Your task to perform on an android device: turn off javascript in the chrome app Image 0: 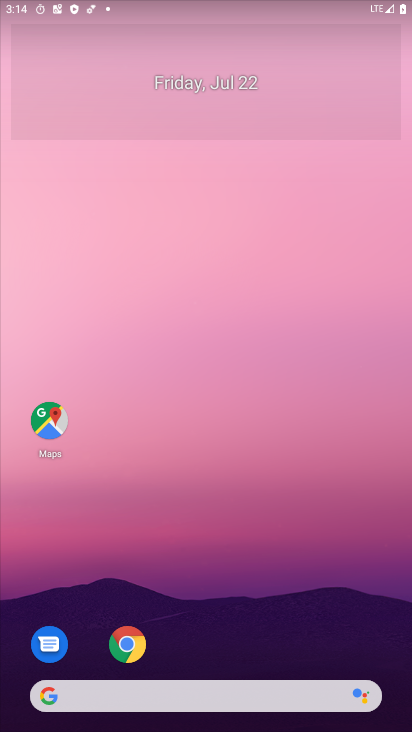
Step 0: drag from (206, 630) to (252, 165)
Your task to perform on an android device: turn off javascript in the chrome app Image 1: 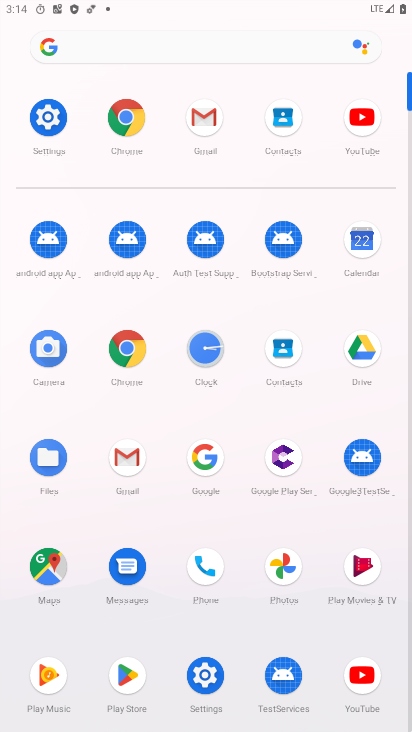
Step 1: click (128, 122)
Your task to perform on an android device: turn off javascript in the chrome app Image 2: 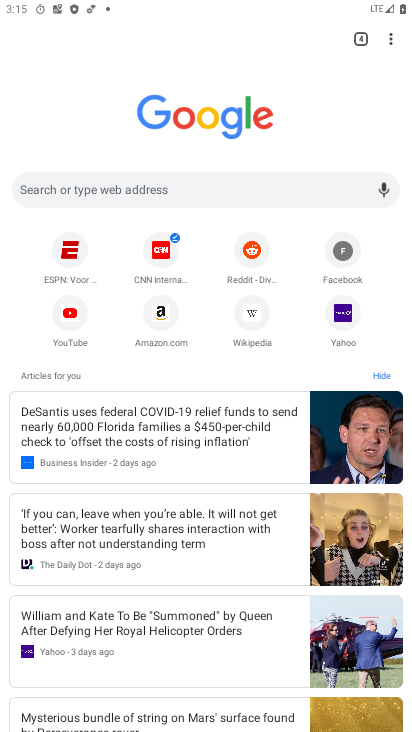
Step 2: drag from (386, 38) to (268, 372)
Your task to perform on an android device: turn off javascript in the chrome app Image 3: 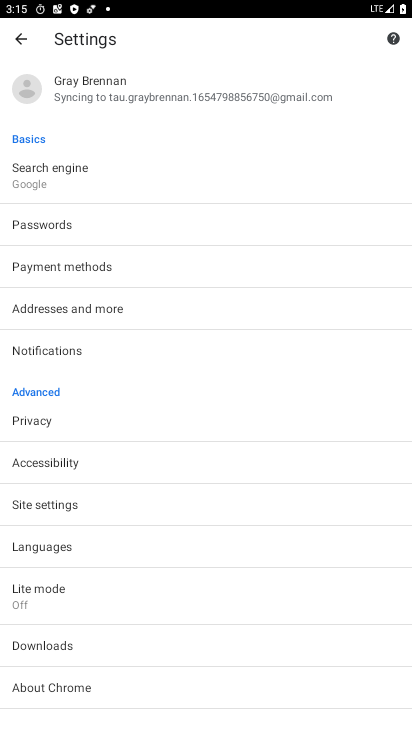
Step 3: click (50, 506)
Your task to perform on an android device: turn off javascript in the chrome app Image 4: 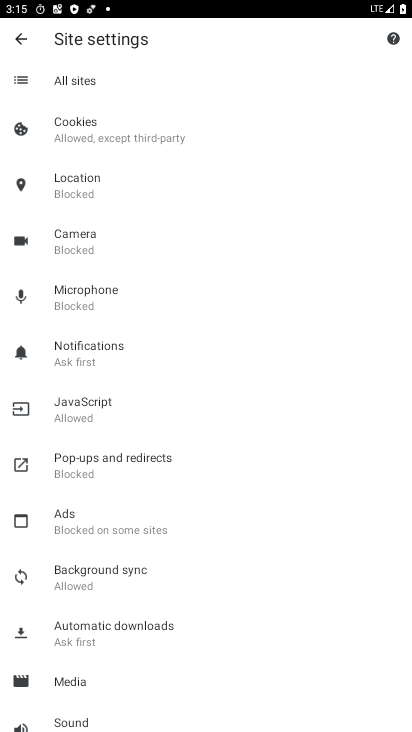
Step 4: click (67, 406)
Your task to perform on an android device: turn off javascript in the chrome app Image 5: 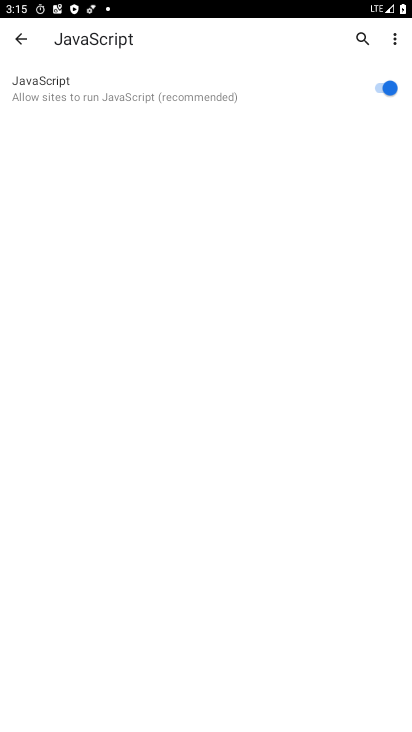
Step 5: click (390, 85)
Your task to perform on an android device: turn off javascript in the chrome app Image 6: 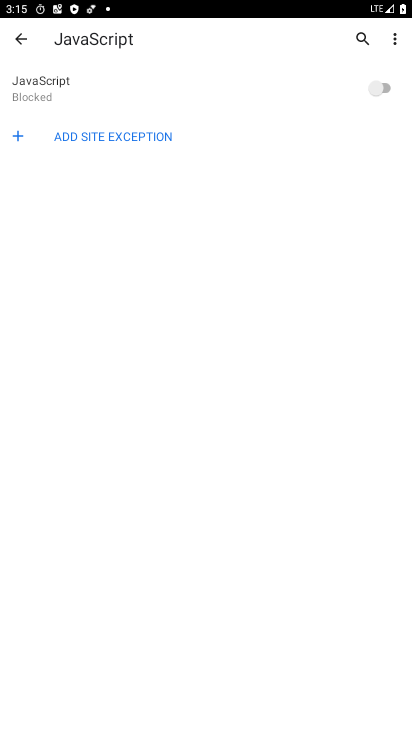
Step 6: task complete